Your task to perform on an android device: turn off picture-in-picture Image 0: 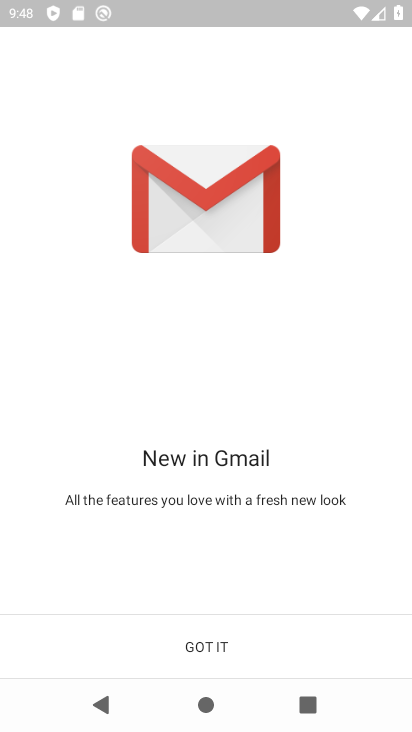
Step 0: press home button
Your task to perform on an android device: turn off picture-in-picture Image 1: 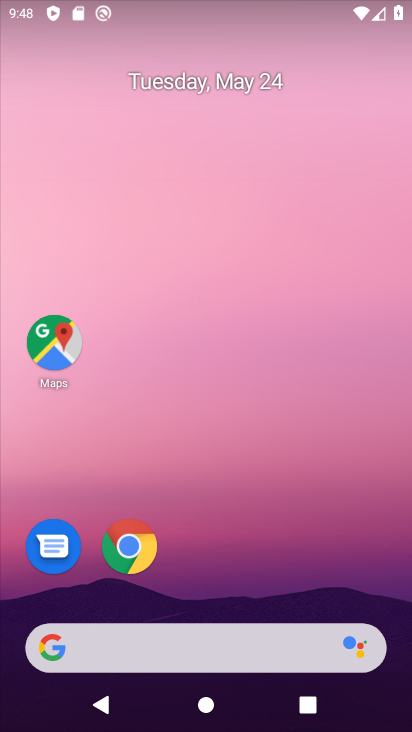
Step 1: click (131, 535)
Your task to perform on an android device: turn off picture-in-picture Image 2: 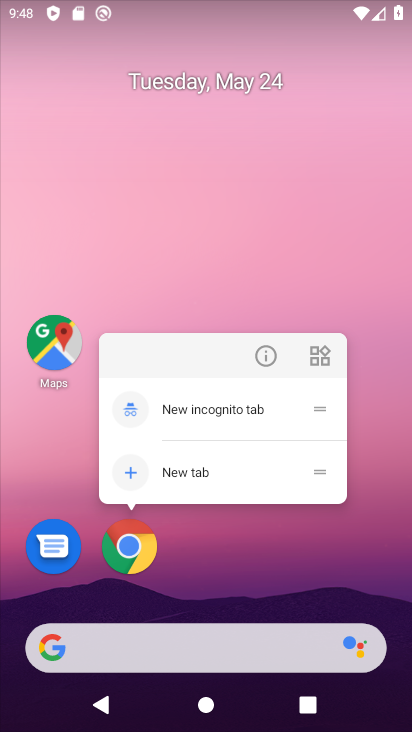
Step 2: click (273, 360)
Your task to perform on an android device: turn off picture-in-picture Image 3: 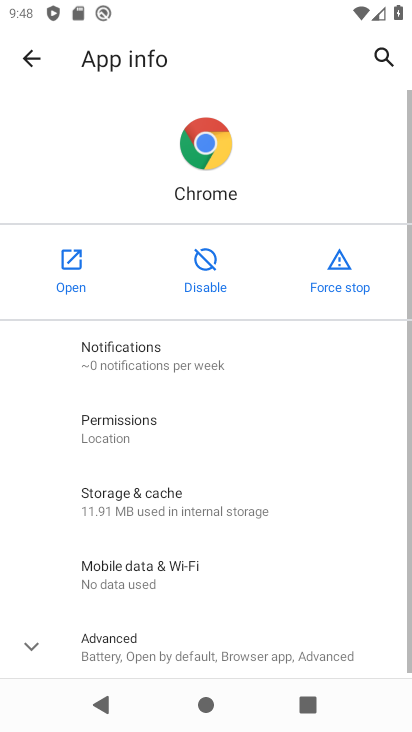
Step 3: drag from (260, 629) to (227, 70)
Your task to perform on an android device: turn off picture-in-picture Image 4: 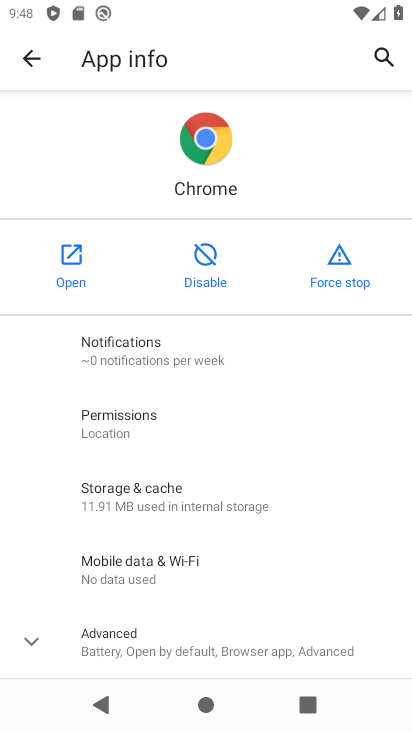
Step 4: click (146, 628)
Your task to perform on an android device: turn off picture-in-picture Image 5: 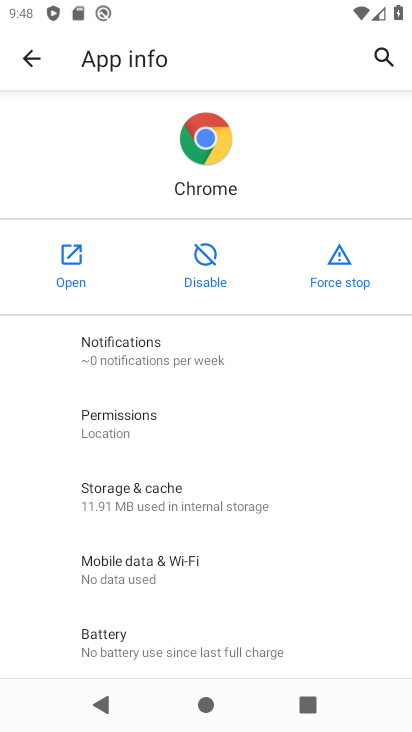
Step 5: drag from (196, 639) to (176, 107)
Your task to perform on an android device: turn off picture-in-picture Image 6: 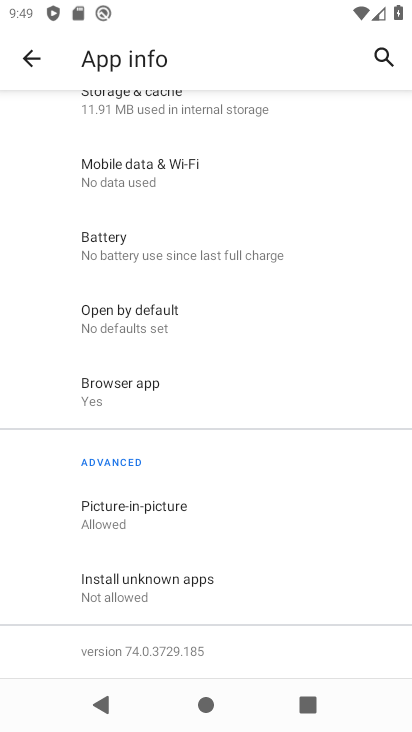
Step 6: click (194, 516)
Your task to perform on an android device: turn off picture-in-picture Image 7: 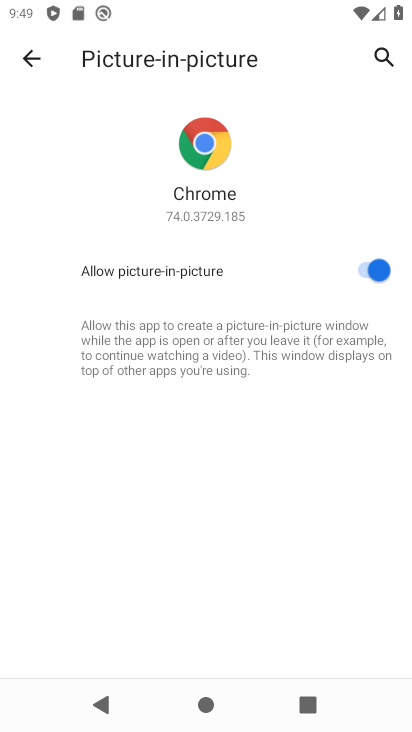
Step 7: click (368, 272)
Your task to perform on an android device: turn off picture-in-picture Image 8: 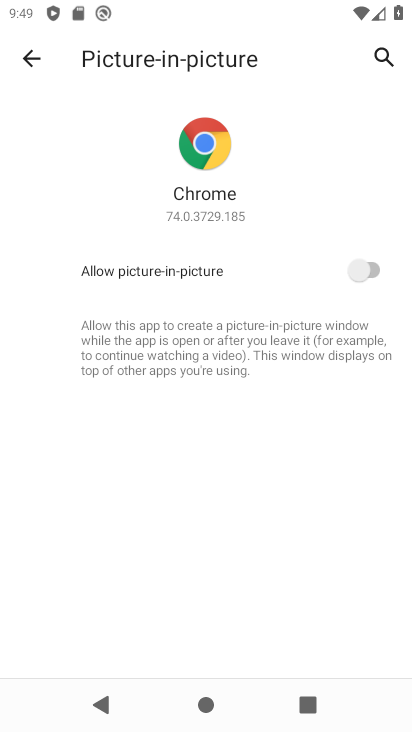
Step 8: task complete